Your task to perform on an android device: Search for pizza restaurants on Maps Image 0: 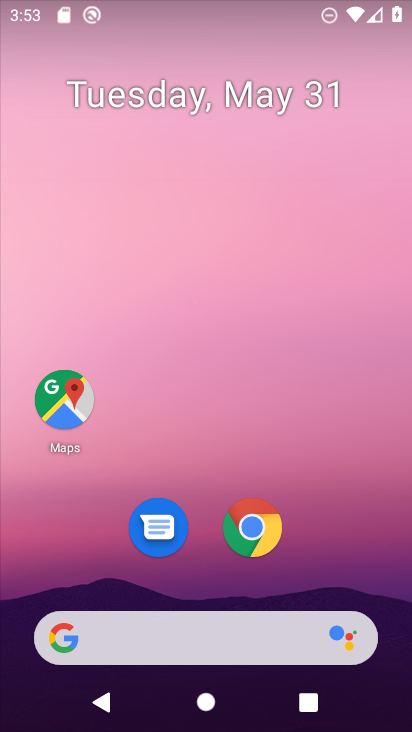
Step 0: click (84, 403)
Your task to perform on an android device: Search for pizza restaurants on Maps Image 1: 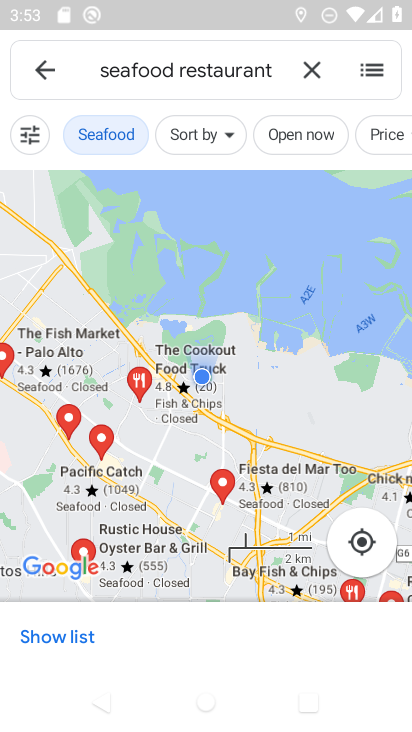
Step 1: click (314, 76)
Your task to perform on an android device: Search for pizza restaurants on Maps Image 2: 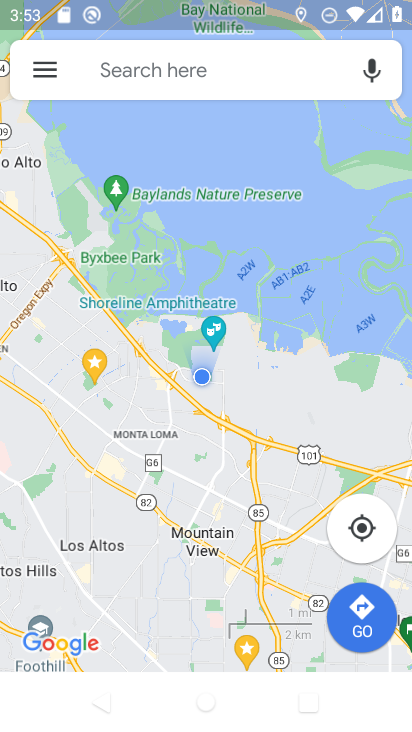
Step 2: click (191, 79)
Your task to perform on an android device: Search for pizza restaurants on Maps Image 3: 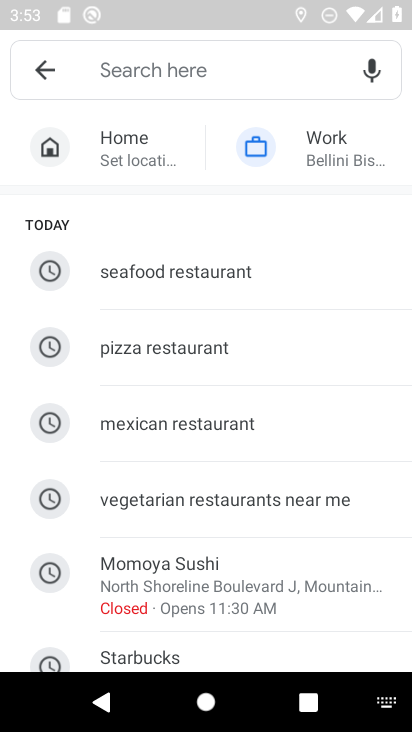
Step 3: click (165, 349)
Your task to perform on an android device: Search for pizza restaurants on Maps Image 4: 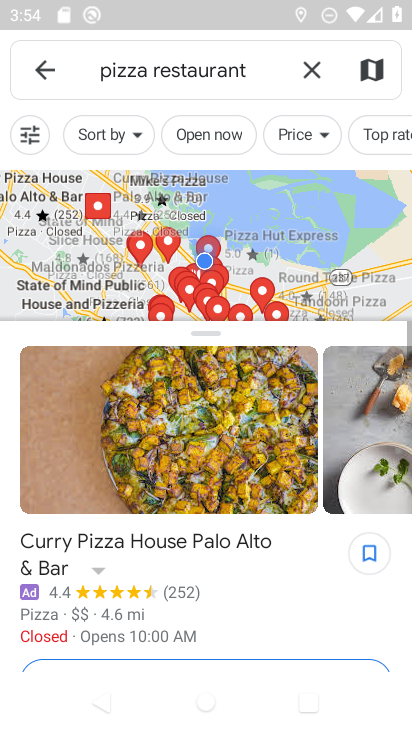
Step 4: task complete